Your task to perform on an android device: Go to display settings Image 0: 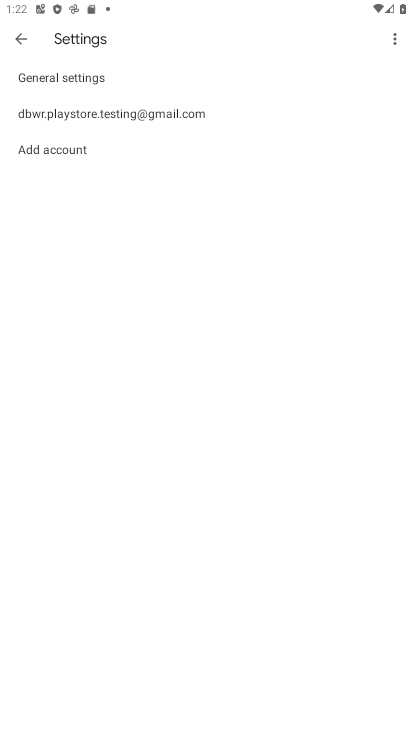
Step 0: press home button
Your task to perform on an android device: Go to display settings Image 1: 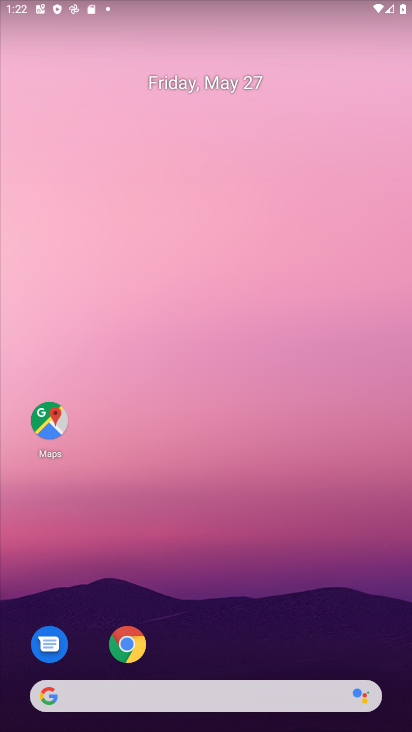
Step 1: drag from (341, 639) to (267, 43)
Your task to perform on an android device: Go to display settings Image 2: 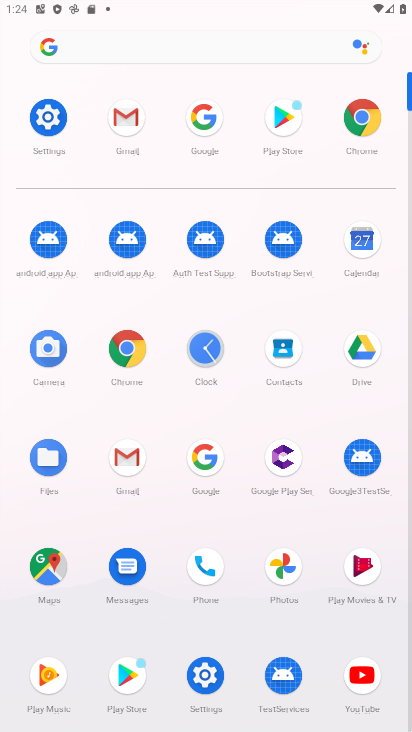
Step 2: click (182, 673)
Your task to perform on an android device: Go to display settings Image 3: 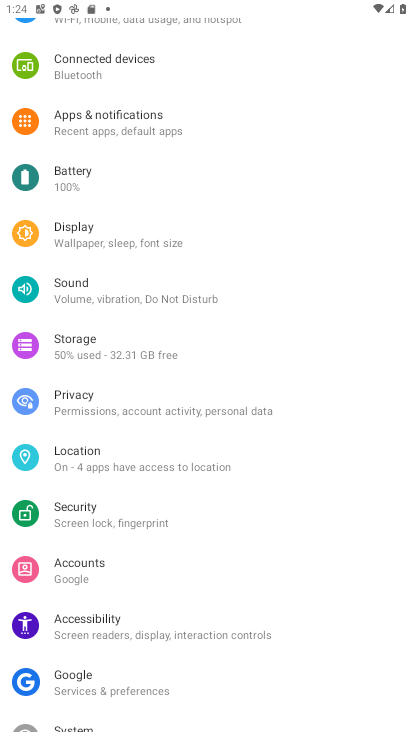
Step 3: click (105, 250)
Your task to perform on an android device: Go to display settings Image 4: 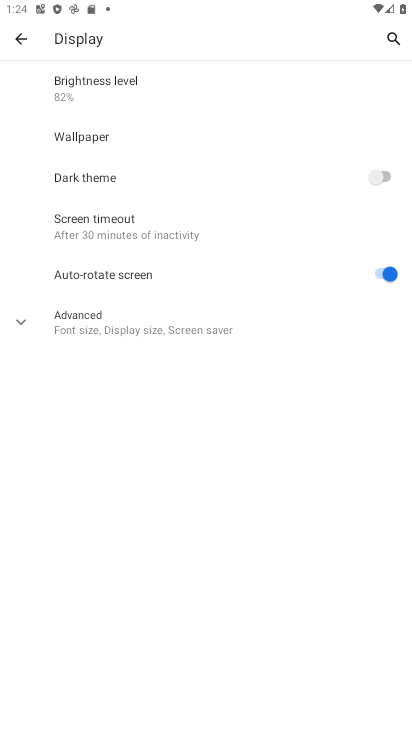
Step 4: task complete